Your task to perform on an android device: refresh tabs in the chrome app Image 0: 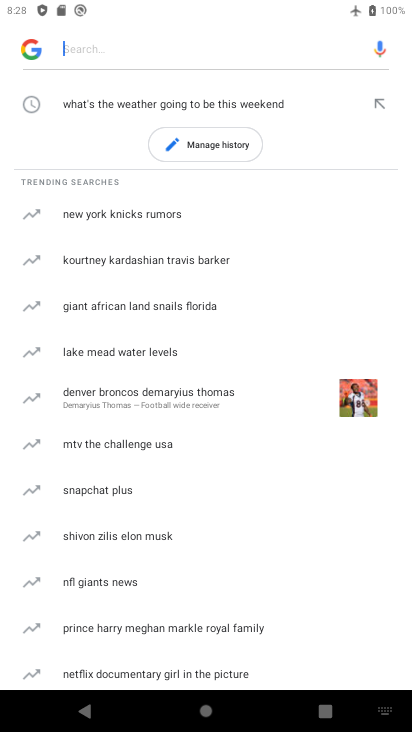
Step 0: press home button
Your task to perform on an android device: refresh tabs in the chrome app Image 1: 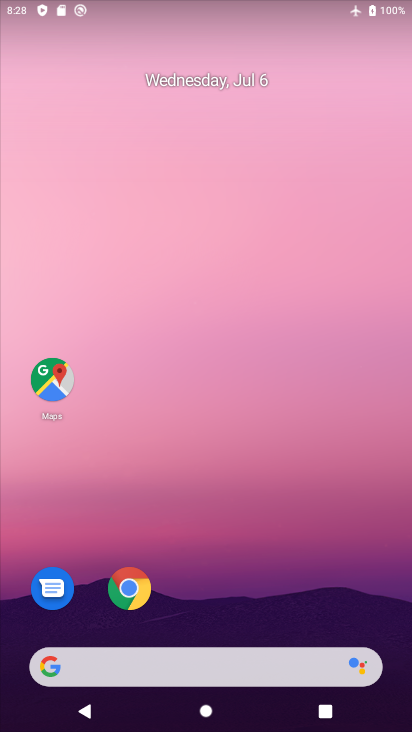
Step 1: click (125, 597)
Your task to perform on an android device: refresh tabs in the chrome app Image 2: 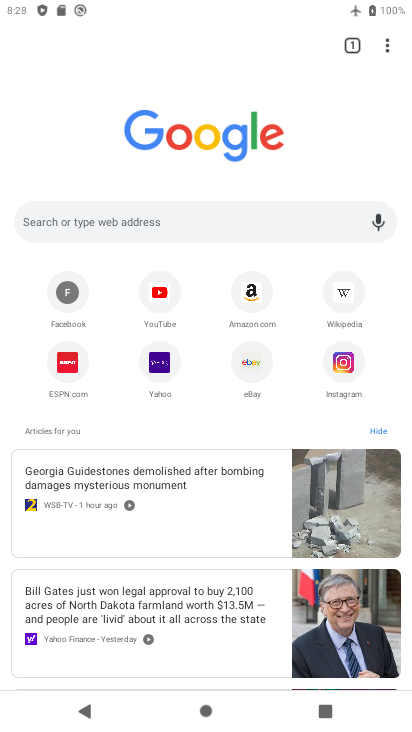
Step 2: click (386, 41)
Your task to perform on an android device: refresh tabs in the chrome app Image 3: 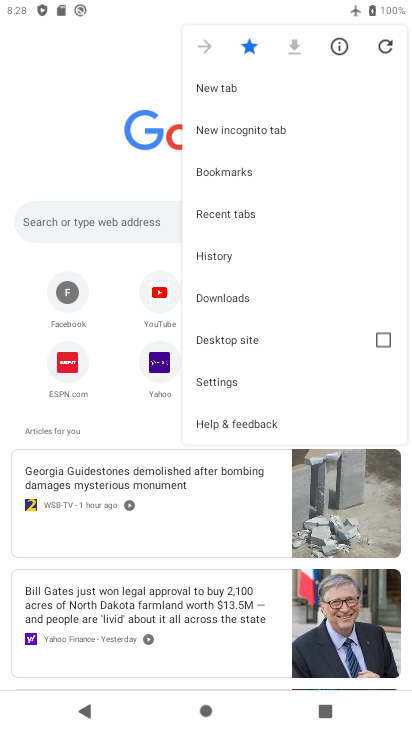
Step 3: click (389, 38)
Your task to perform on an android device: refresh tabs in the chrome app Image 4: 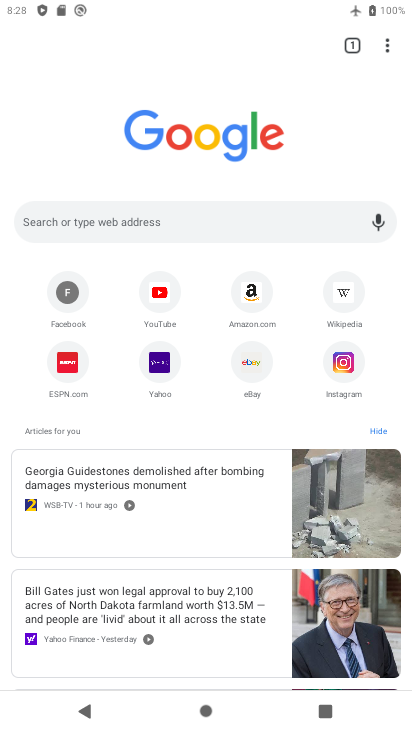
Step 4: task complete